Your task to perform on an android device: check data usage Image 0: 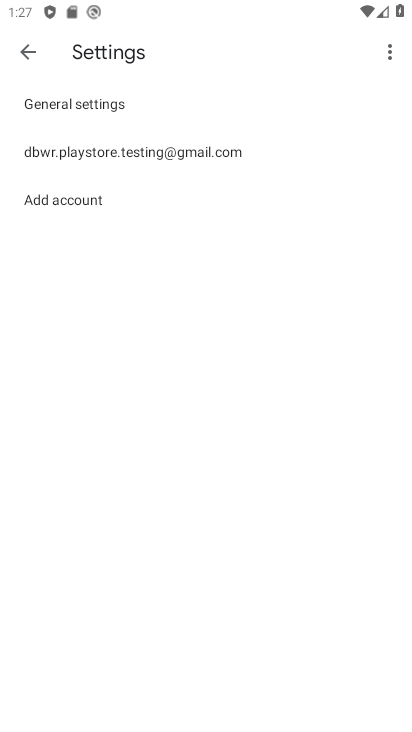
Step 0: press back button
Your task to perform on an android device: check data usage Image 1: 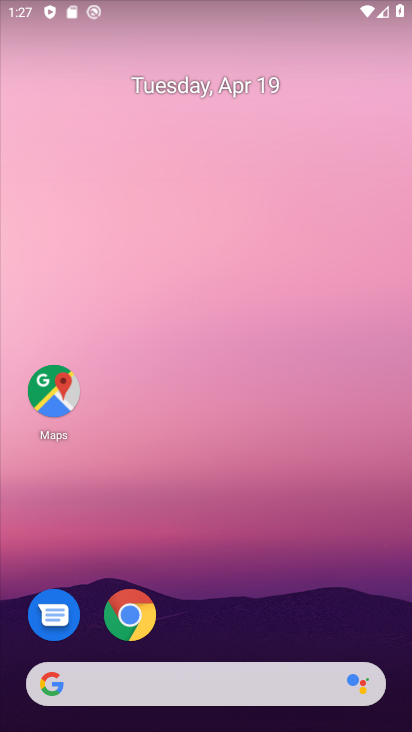
Step 1: drag from (196, 643) to (341, 95)
Your task to perform on an android device: check data usage Image 2: 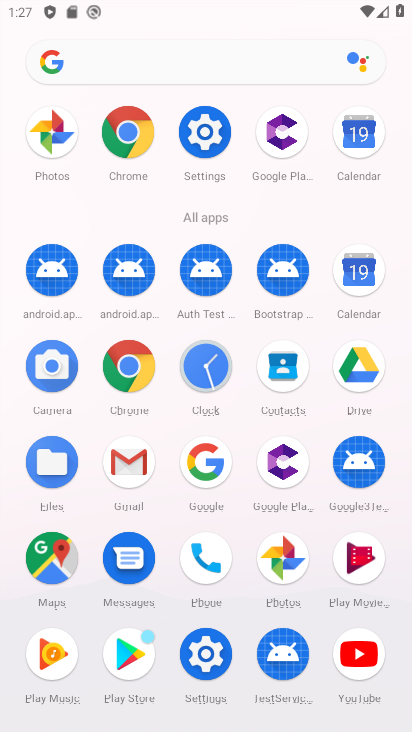
Step 2: click (192, 658)
Your task to perform on an android device: check data usage Image 3: 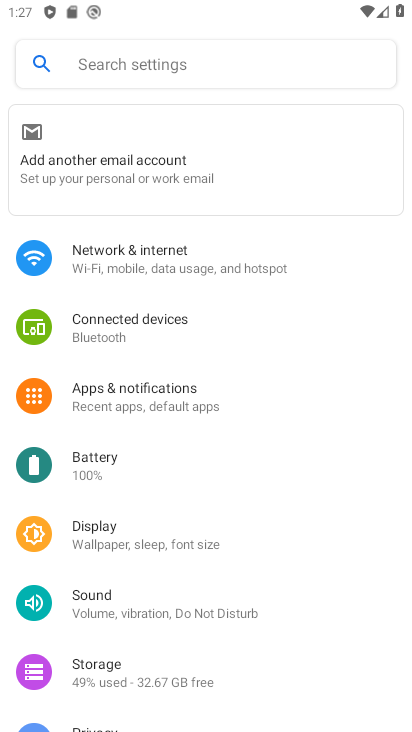
Step 3: click (213, 270)
Your task to perform on an android device: check data usage Image 4: 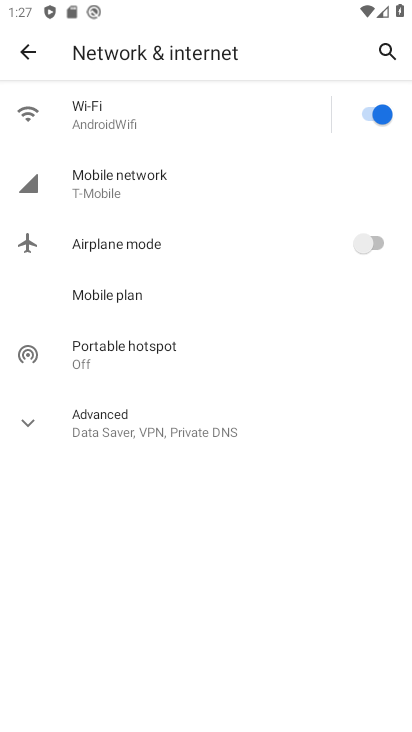
Step 4: click (167, 184)
Your task to perform on an android device: check data usage Image 5: 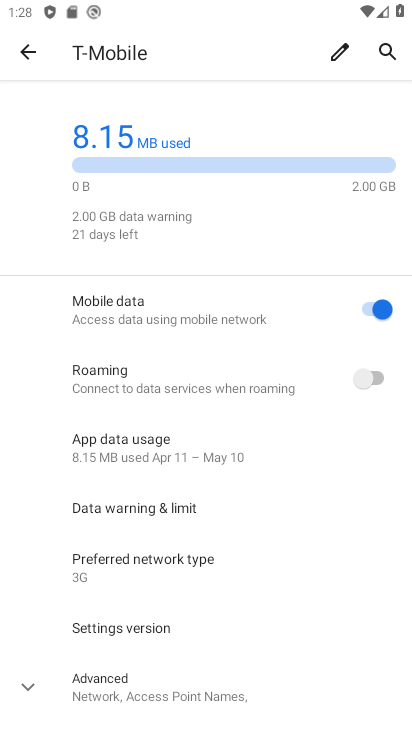
Step 5: click (202, 458)
Your task to perform on an android device: check data usage Image 6: 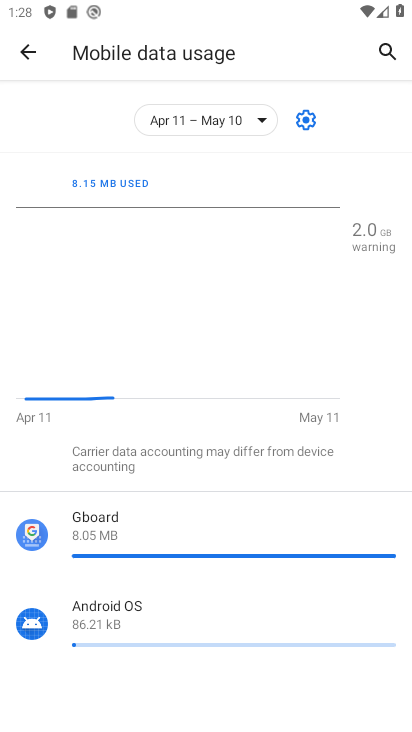
Step 6: task complete